Your task to perform on an android device: Open the phone app and click the voicemail tab. Image 0: 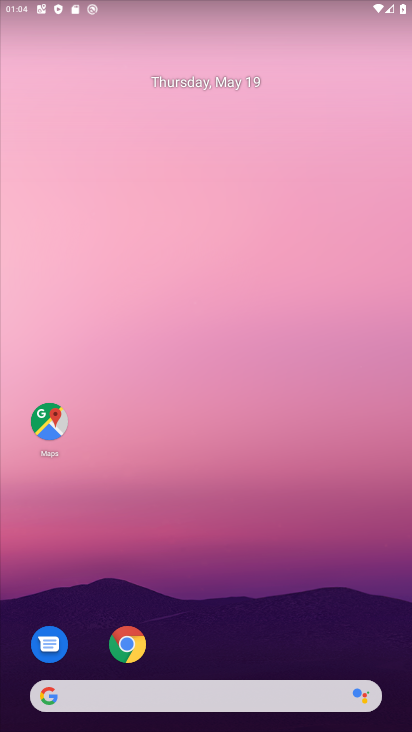
Step 0: drag from (325, 630) to (347, 282)
Your task to perform on an android device: Open the phone app and click the voicemail tab. Image 1: 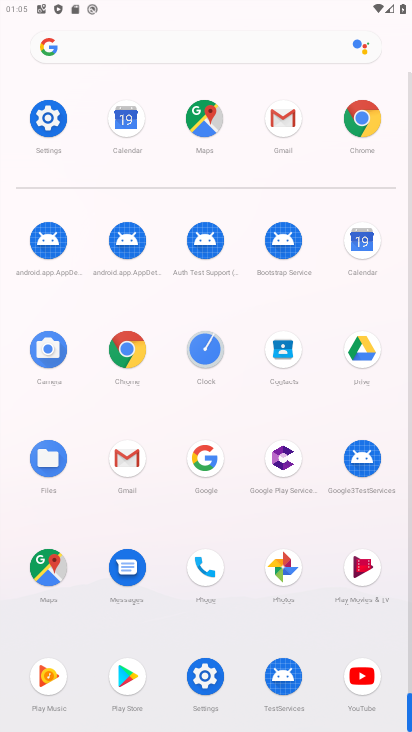
Step 1: click (202, 579)
Your task to perform on an android device: Open the phone app and click the voicemail tab. Image 2: 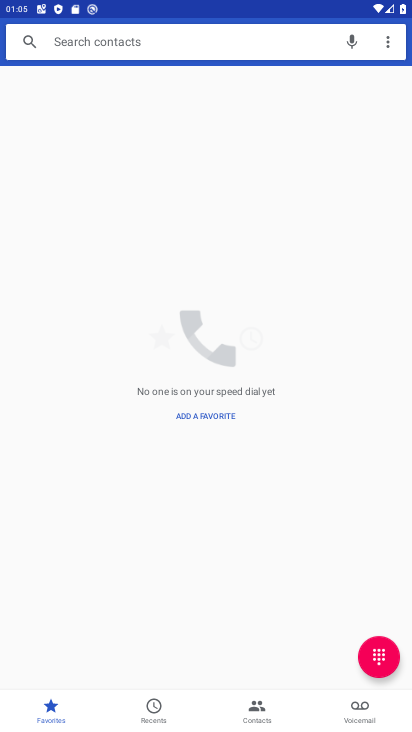
Step 2: click (359, 716)
Your task to perform on an android device: Open the phone app and click the voicemail tab. Image 3: 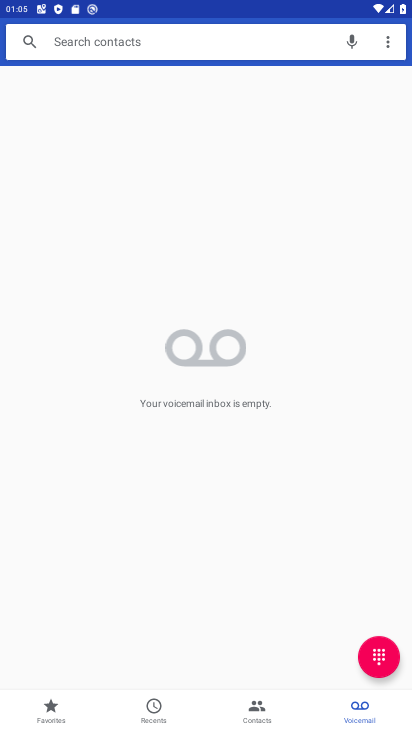
Step 3: task complete